Your task to perform on an android device: toggle show notifications on the lock screen Image 0: 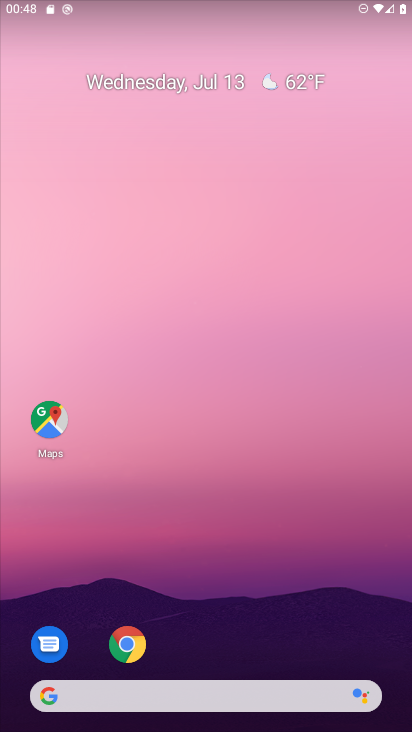
Step 0: drag from (214, 661) to (94, 48)
Your task to perform on an android device: toggle show notifications on the lock screen Image 1: 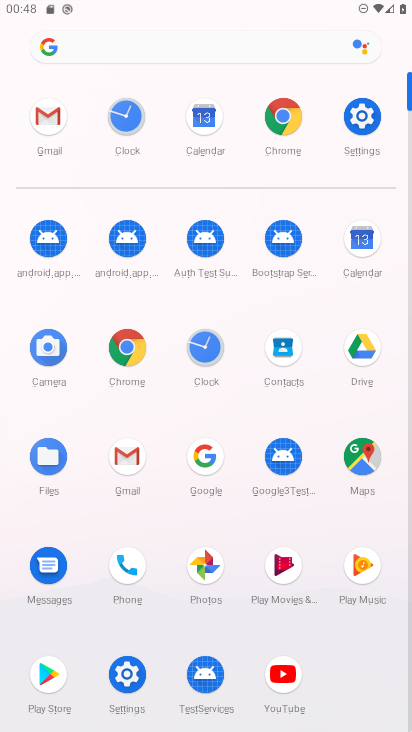
Step 1: click (354, 133)
Your task to perform on an android device: toggle show notifications on the lock screen Image 2: 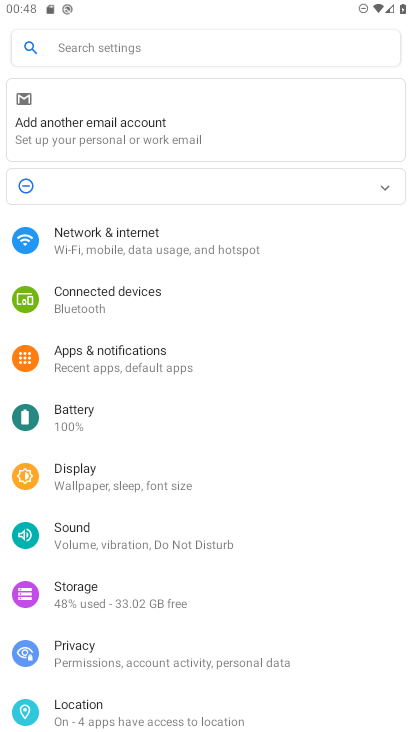
Step 2: click (129, 367)
Your task to perform on an android device: toggle show notifications on the lock screen Image 3: 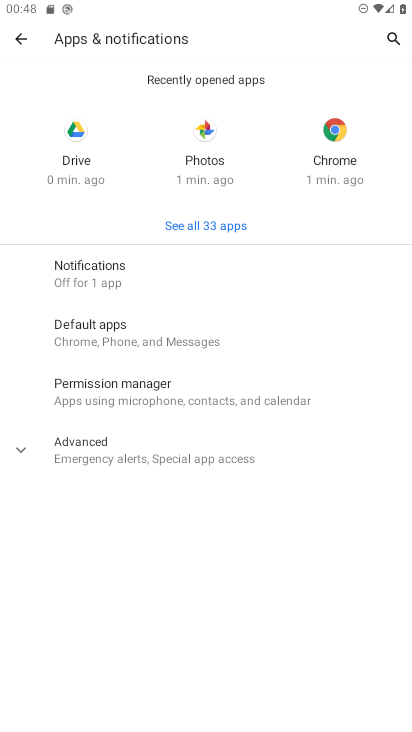
Step 3: click (95, 272)
Your task to perform on an android device: toggle show notifications on the lock screen Image 4: 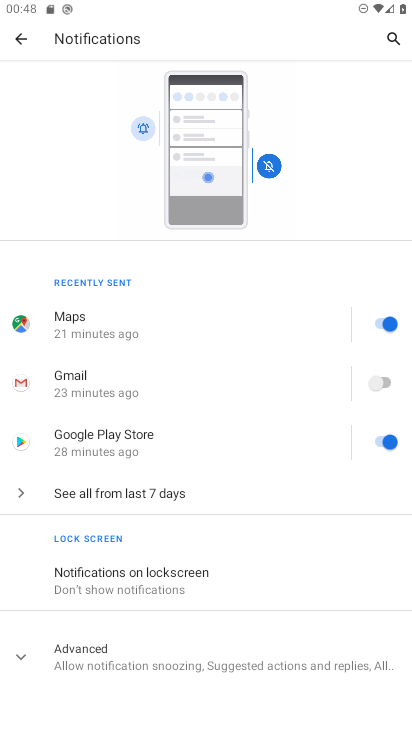
Step 4: click (109, 591)
Your task to perform on an android device: toggle show notifications on the lock screen Image 5: 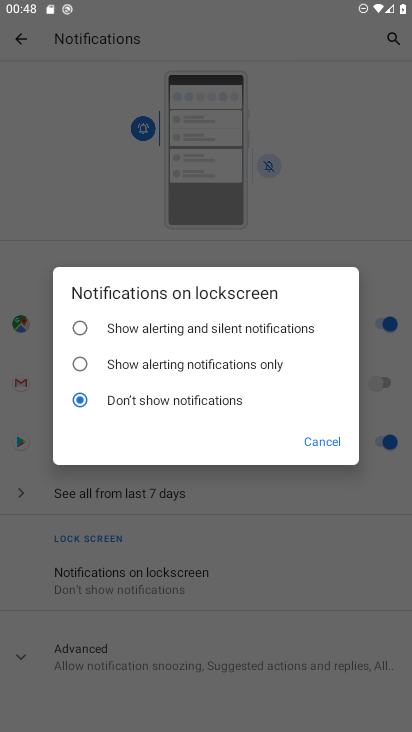
Step 5: click (100, 325)
Your task to perform on an android device: toggle show notifications on the lock screen Image 6: 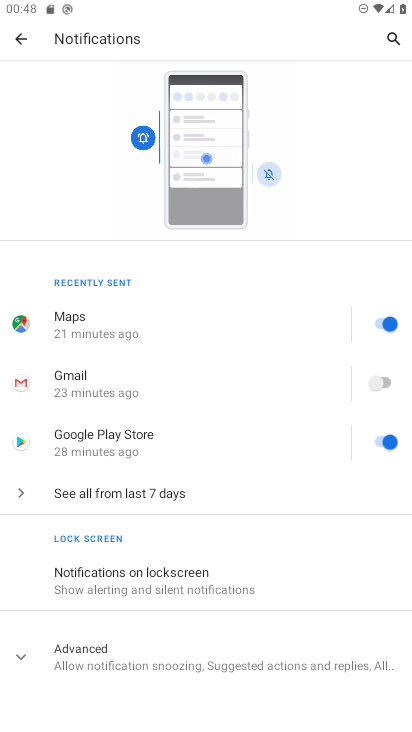
Step 6: task complete